Your task to perform on an android device: open a bookmark in the chrome app Image 0: 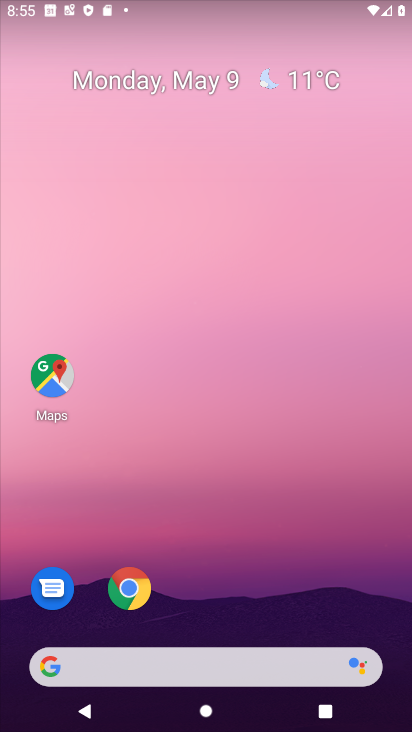
Step 0: press home button
Your task to perform on an android device: open a bookmark in the chrome app Image 1: 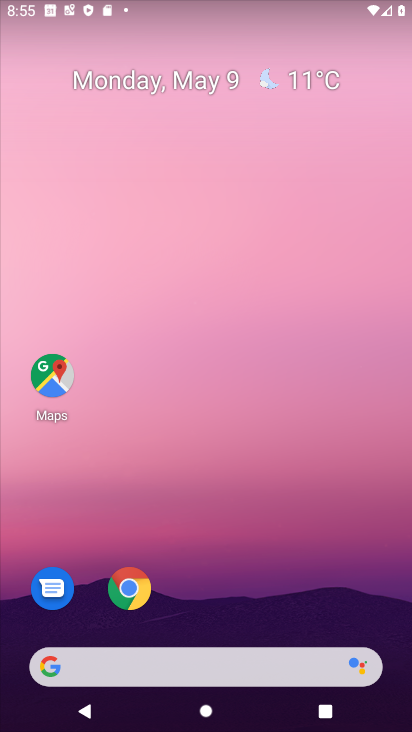
Step 1: drag from (154, 668) to (279, 116)
Your task to perform on an android device: open a bookmark in the chrome app Image 2: 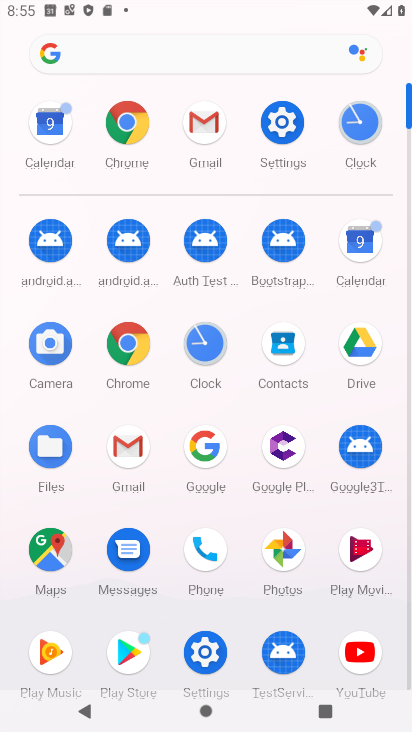
Step 2: click (130, 131)
Your task to perform on an android device: open a bookmark in the chrome app Image 3: 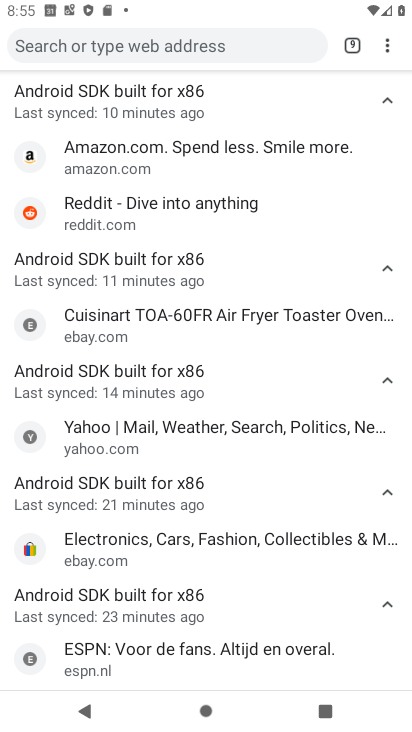
Step 3: task complete